Your task to perform on an android device: set the stopwatch Image 0: 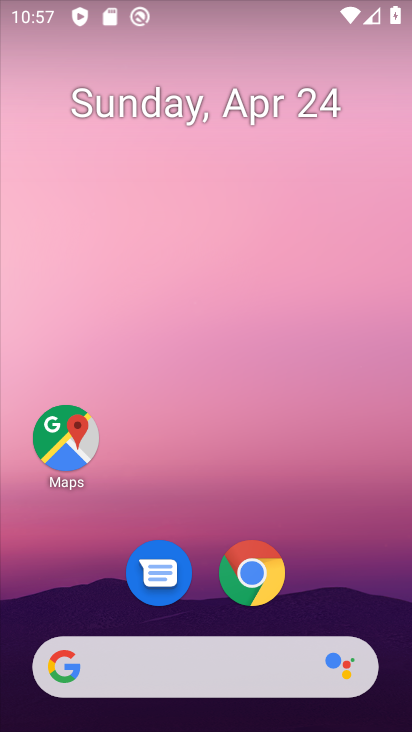
Step 0: drag from (206, 728) to (207, 89)
Your task to perform on an android device: set the stopwatch Image 1: 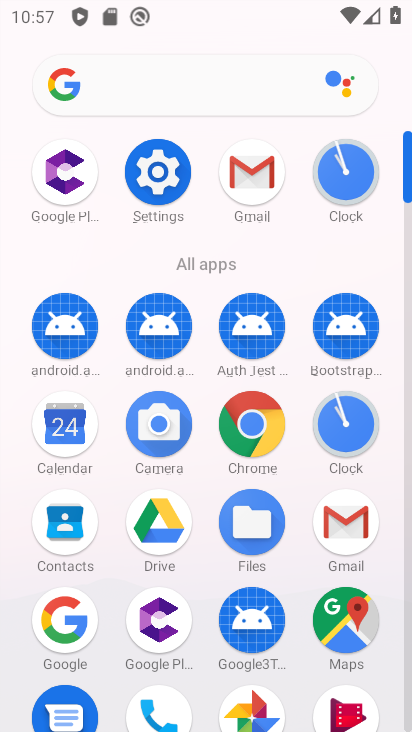
Step 1: click (349, 424)
Your task to perform on an android device: set the stopwatch Image 2: 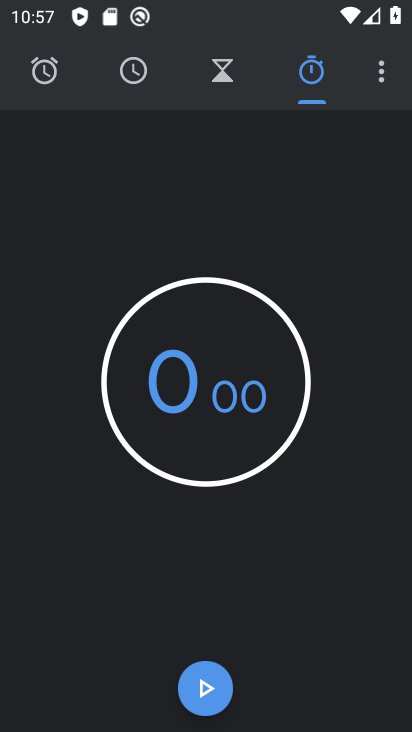
Step 2: type "678"
Your task to perform on an android device: set the stopwatch Image 3: 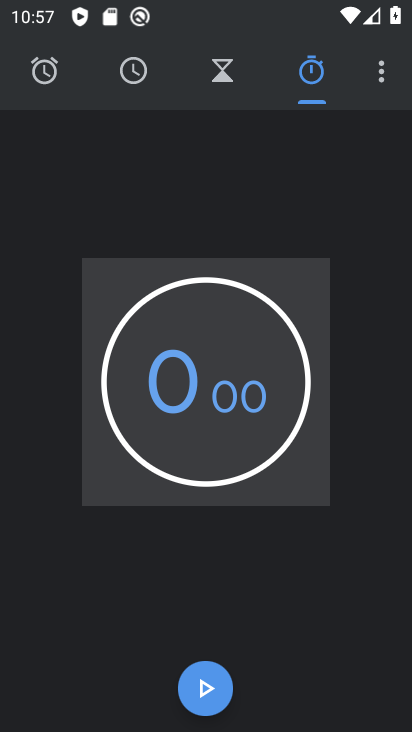
Step 3: click (228, 380)
Your task to perform on an android device: set the stopwatch Image 4: 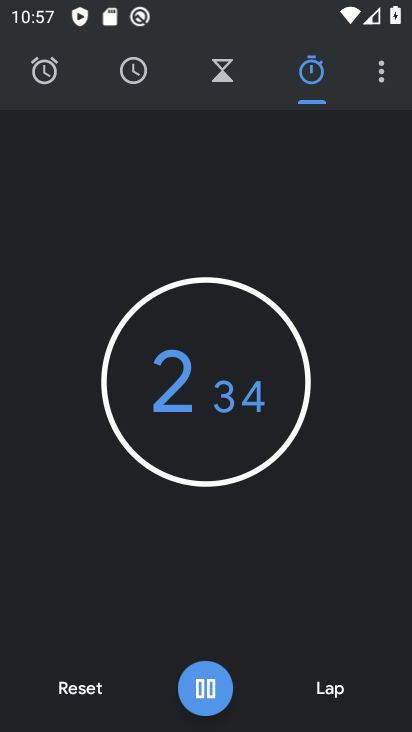
Step 4: type "78"
Your task to perform on an android device: set the stopwatch Image 5: 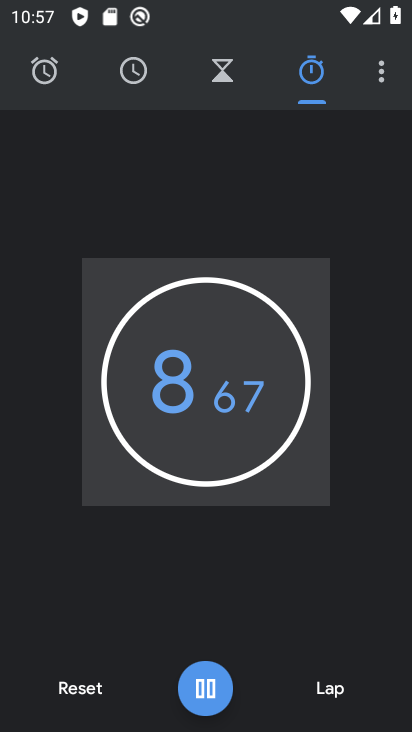
Step 5: task complete